Your task to perform on an android device: turn on sleep mode Image 0: 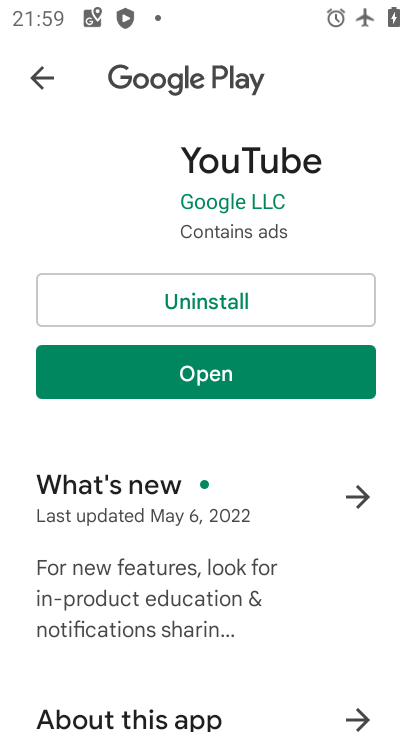
Step 0: drag from (312, 428) to (366, 36)
Your task to perform on an android device: turn on sleep mode Image 1: 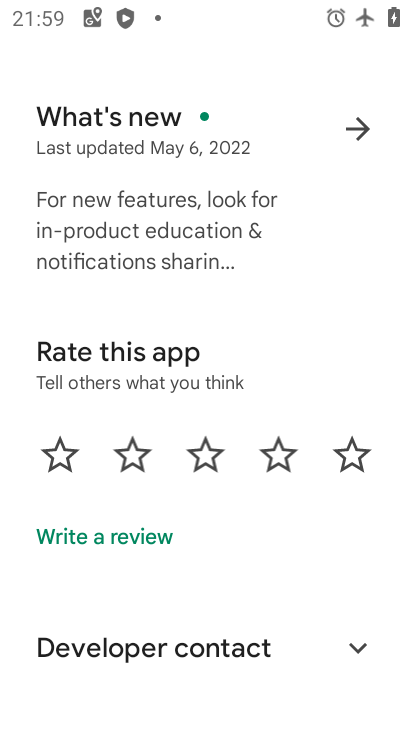
Step 1: press home button
Your task to perform on an android device: turn on sleep mode Image 2: 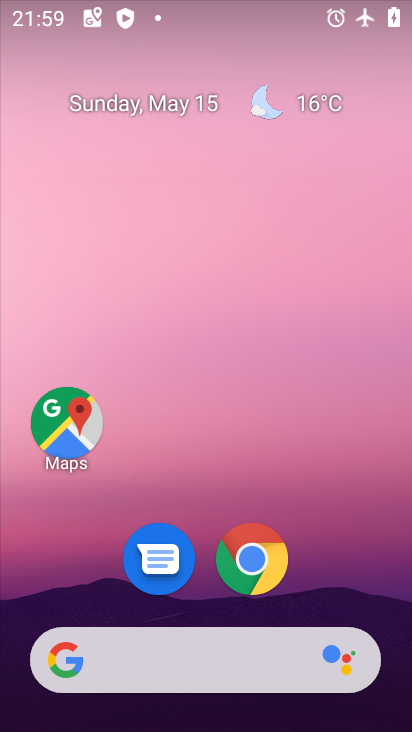
Step 2: drag from (203, 476) to (124, 136)
Your task to perform on an android device: turn on sleep mode Image 3: 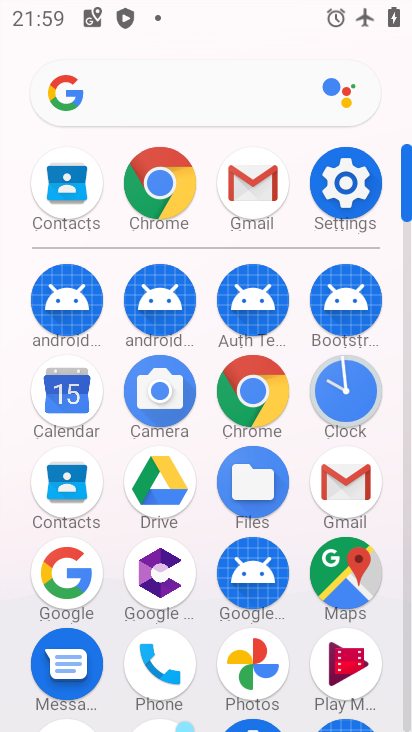
Step 3: click (341, 183)
Your task to perform on an android device: turn on sleep mode Image 4: 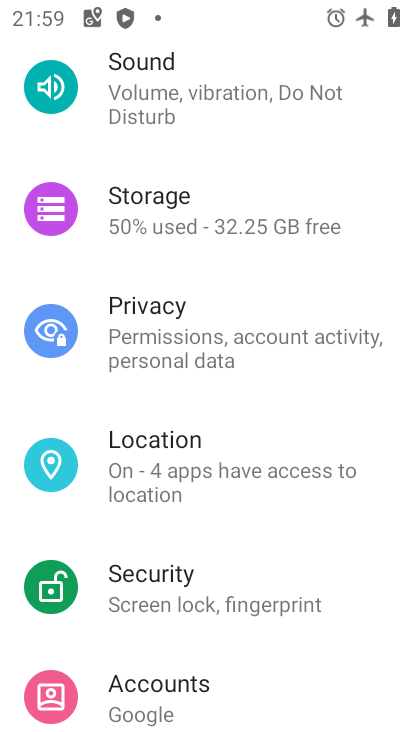
Step 4: drag from (216, 506) to (143, 210)
Your task to perform on an android device: turn on sleep mode Image 5: 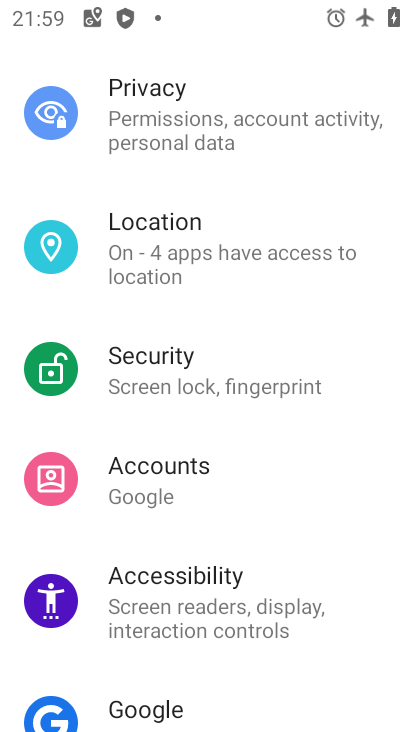
Step 5: click (125, 228)
Your task to perform on an android device: turn on sleep mode Image 6: 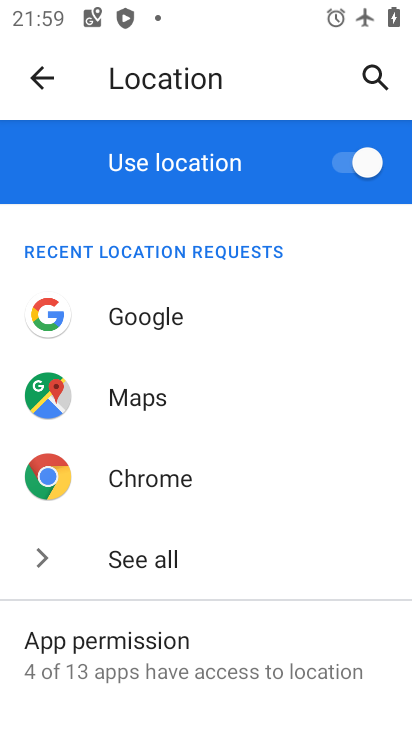
Step 6: task complete